Your task to perform on an android device: snooze an email in the gmail app Image 0: 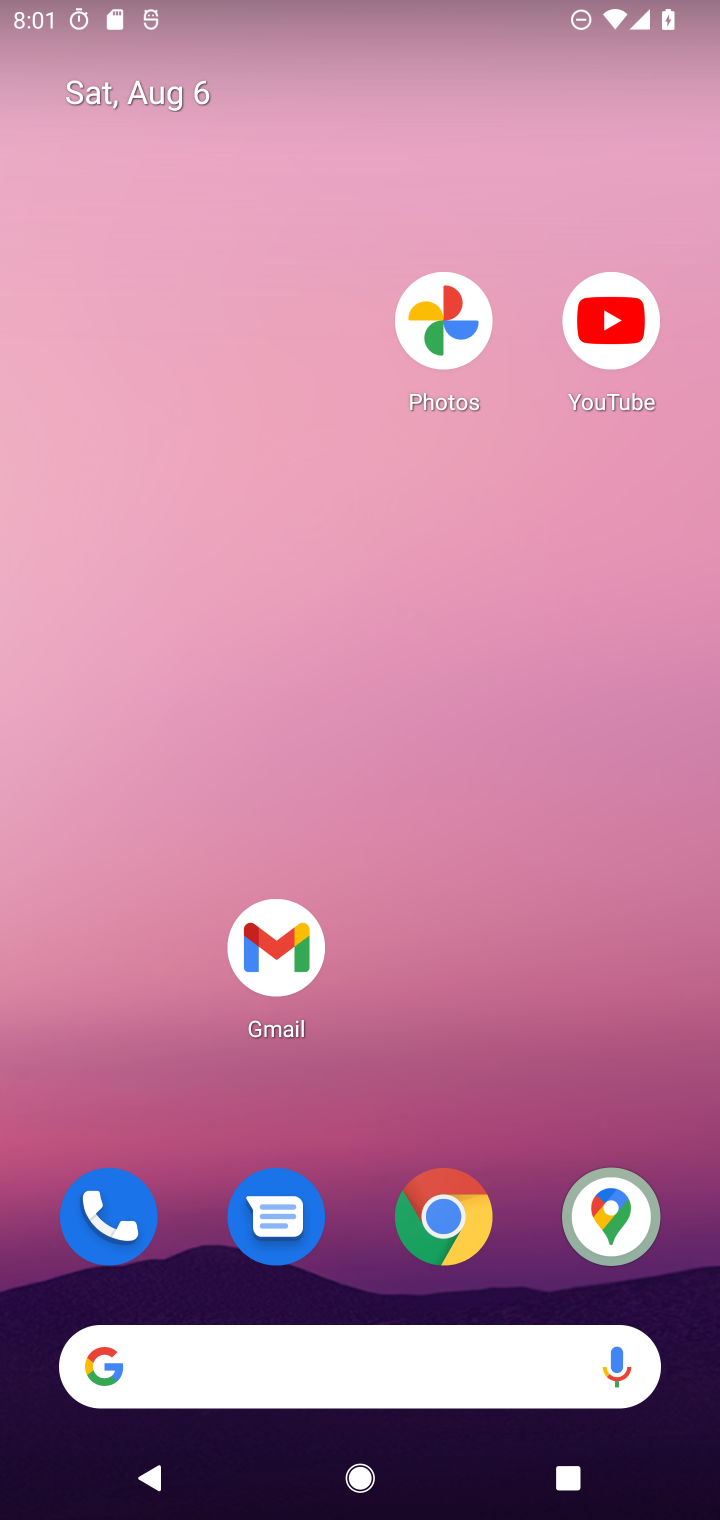
Step 0: drag from (471, 555) to (52, 46)
Your task to perform on an android device: snooze an email in the gmail app Image 1: 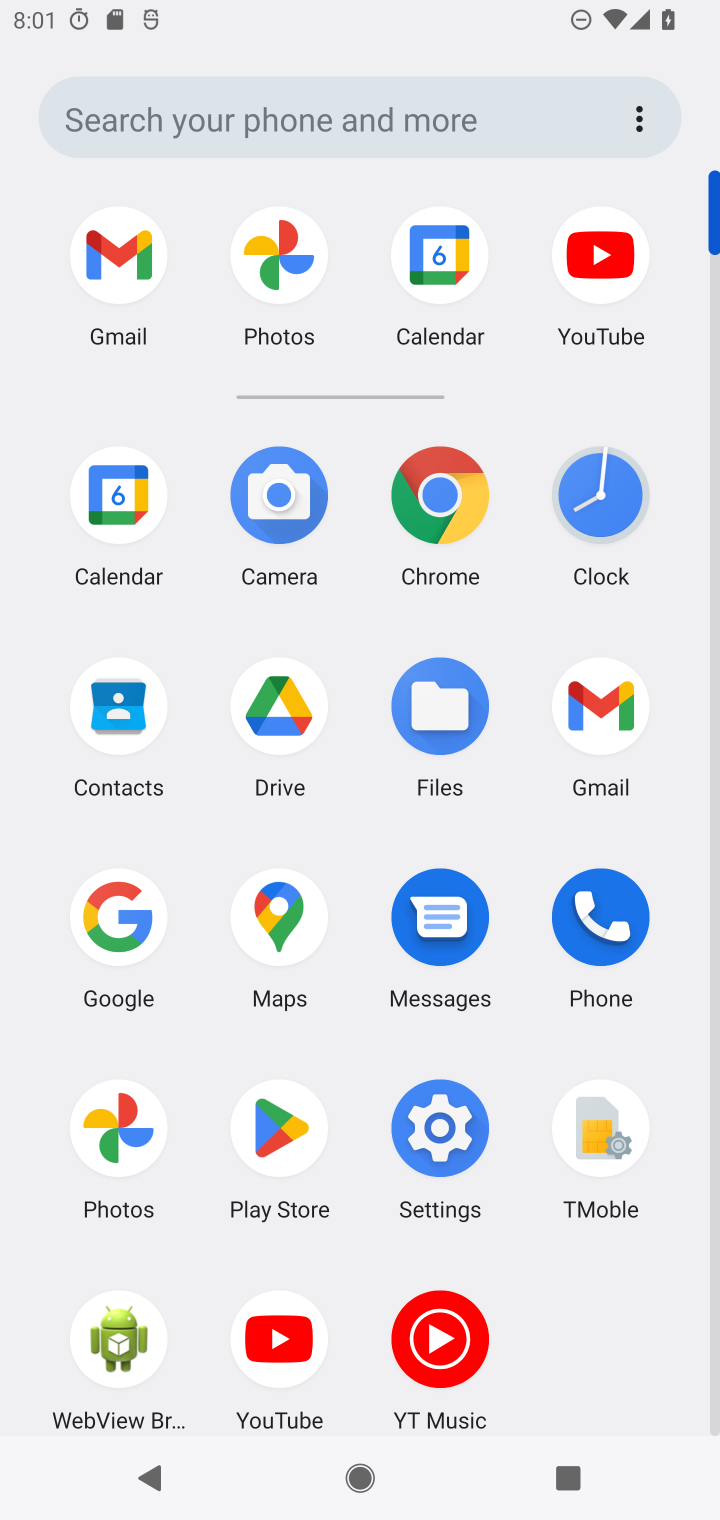
Step 1: click (582, 707)
Your task to perform on an android device: snooze an email in the gmail app Image 2: 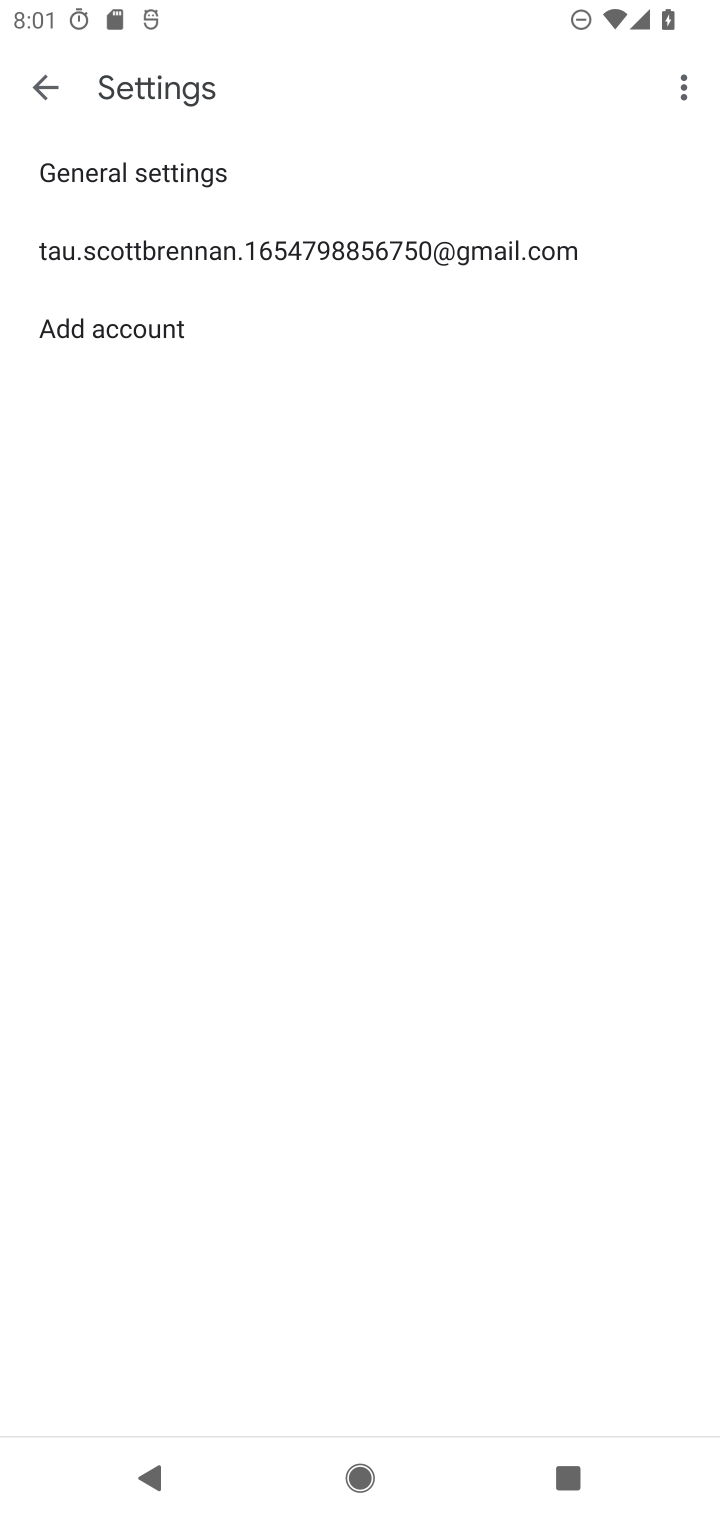
Step 2: click (55, 85)
Your task to perform on an android device: snooze an email in the gmail app Image 3: 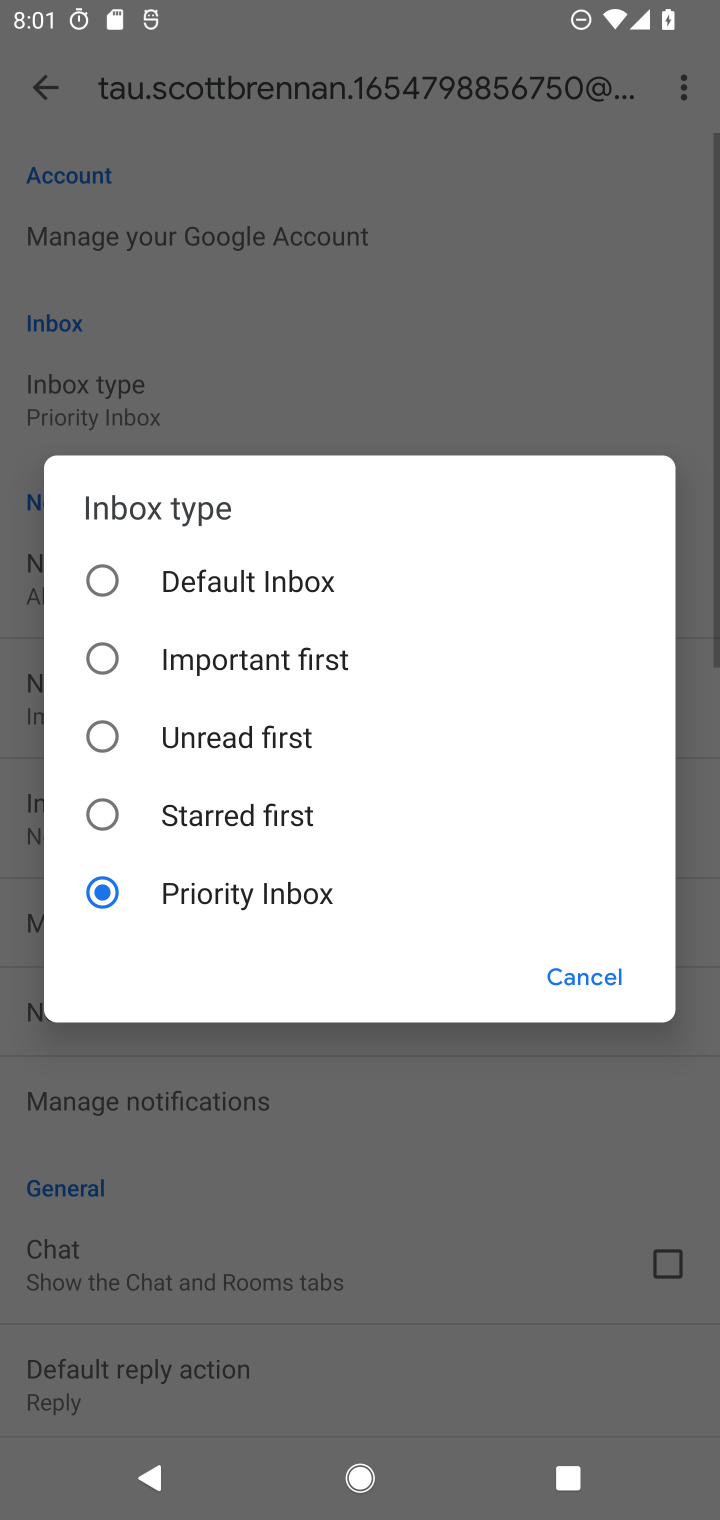
Step 3: click (129, 154)
Your task to perform on an android device: snooze an email in the gmail app Image 4: 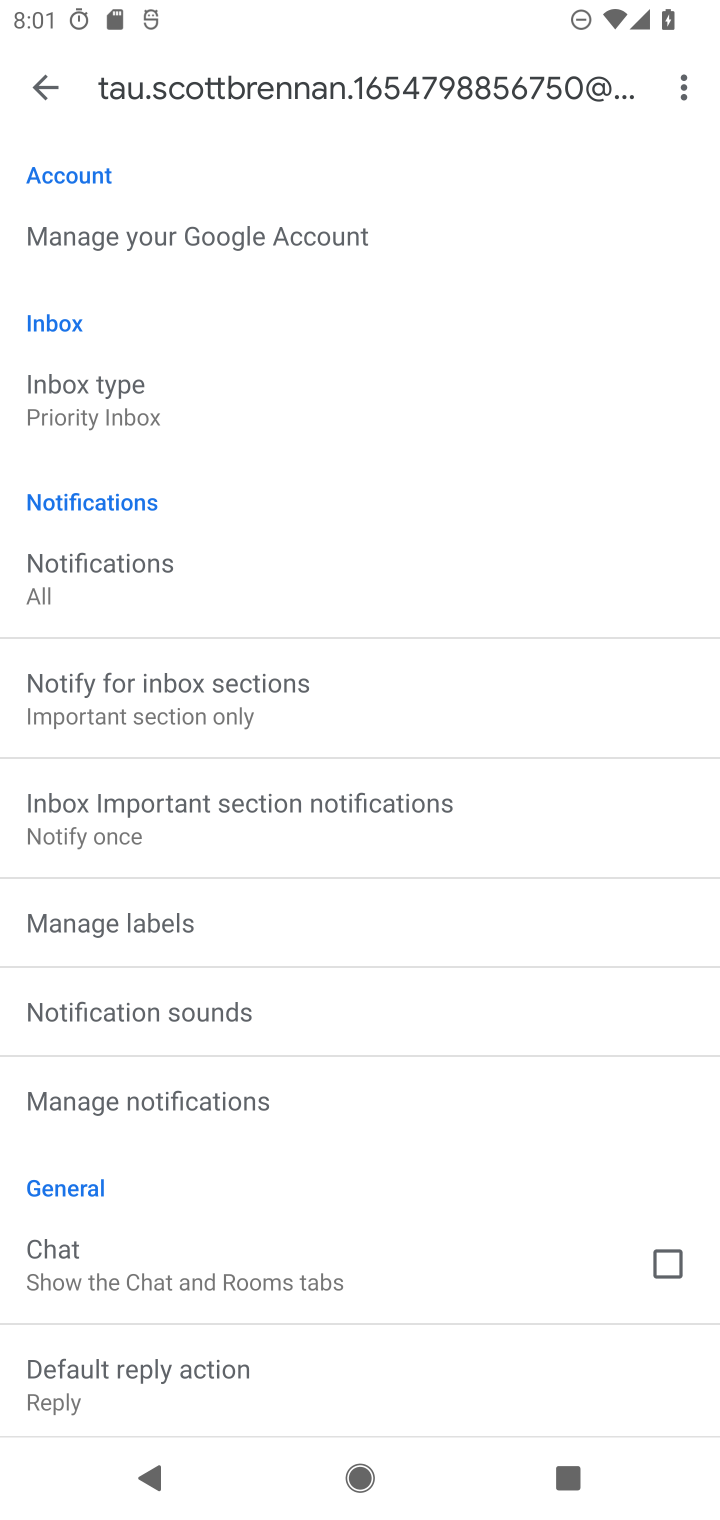
Step 4: click (26, 75)
Your task to perform on an android device: snooze an email in the gmail app Image 5: 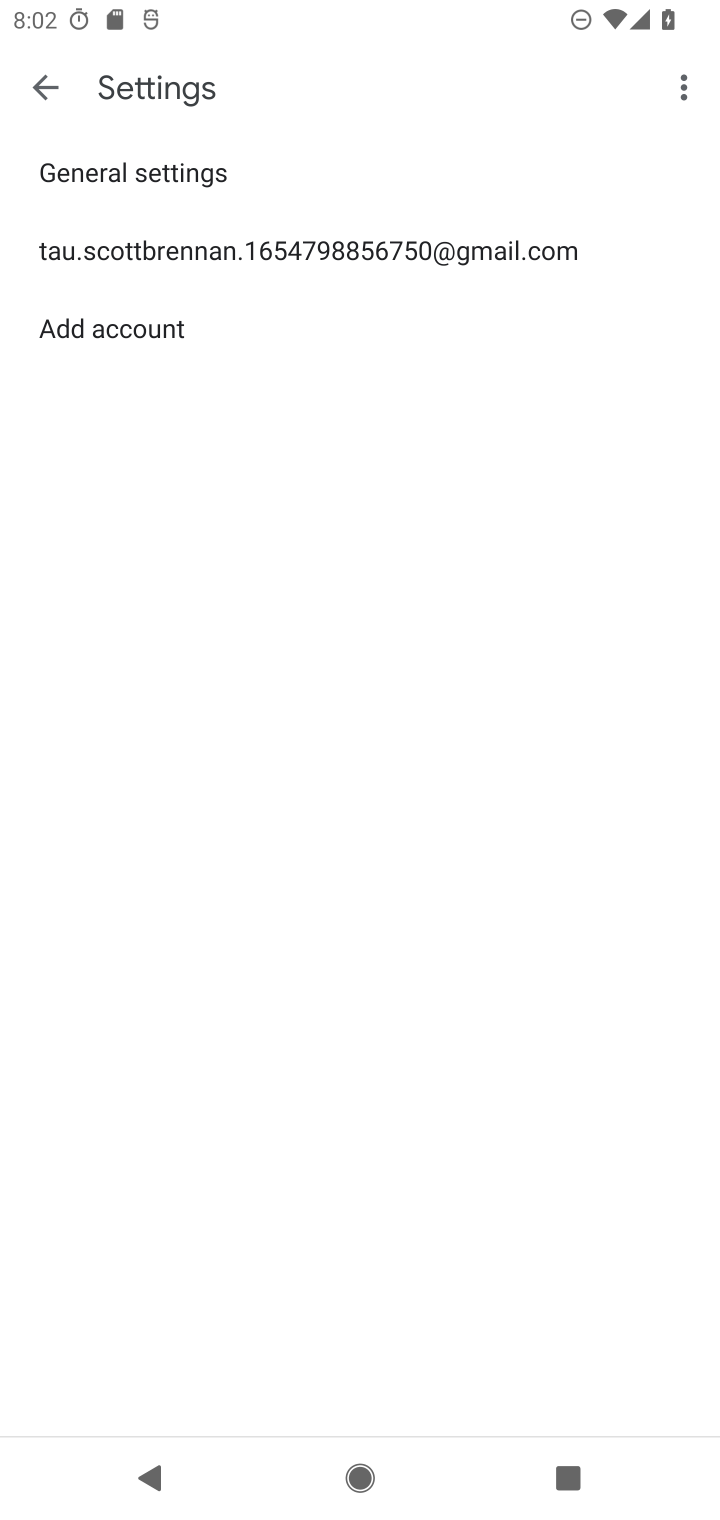
Step 5: click (28, 75)
Your task to perform on an android device: snooze an email in the gmail app Image 6: 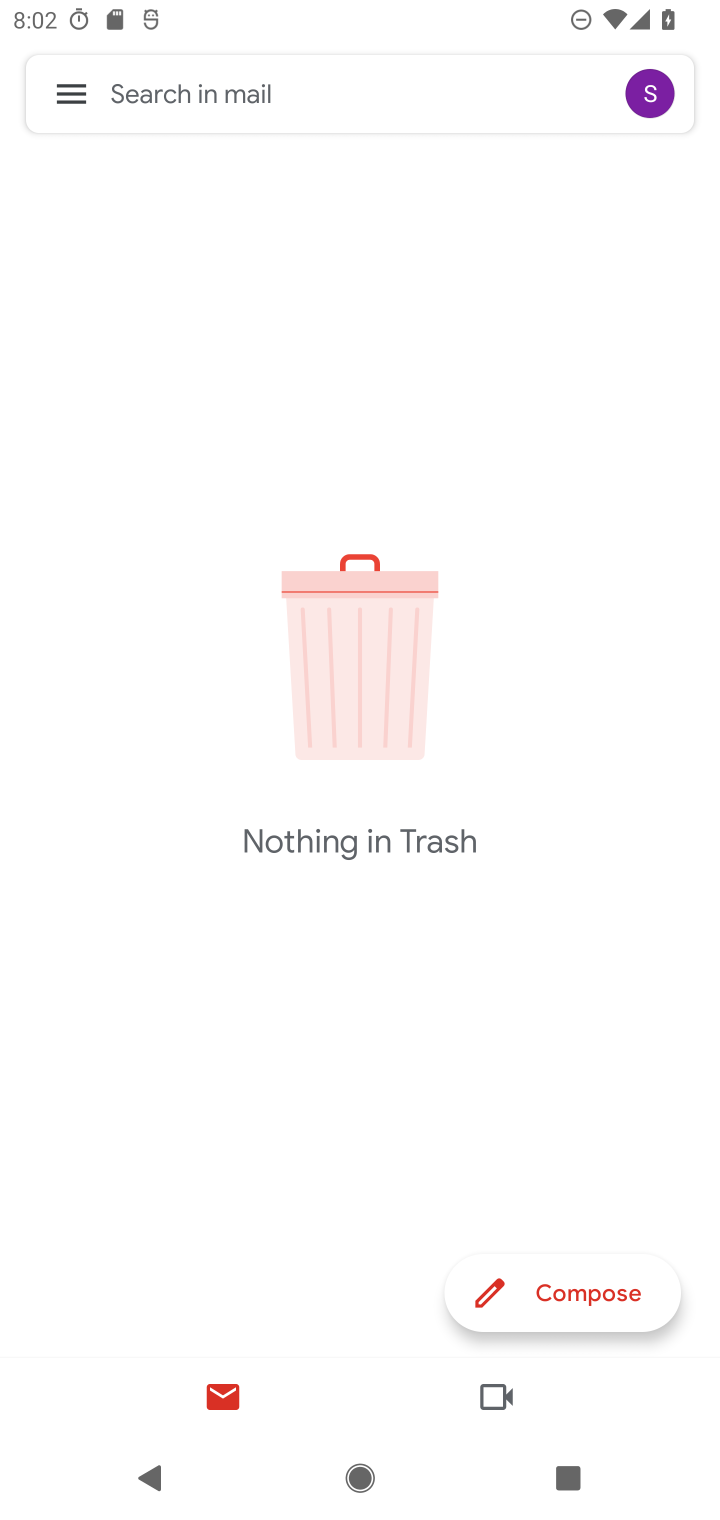
Step 6: click (58, 88)
Your task to perform on an android device: snooze an email in the gmail app Image 7: 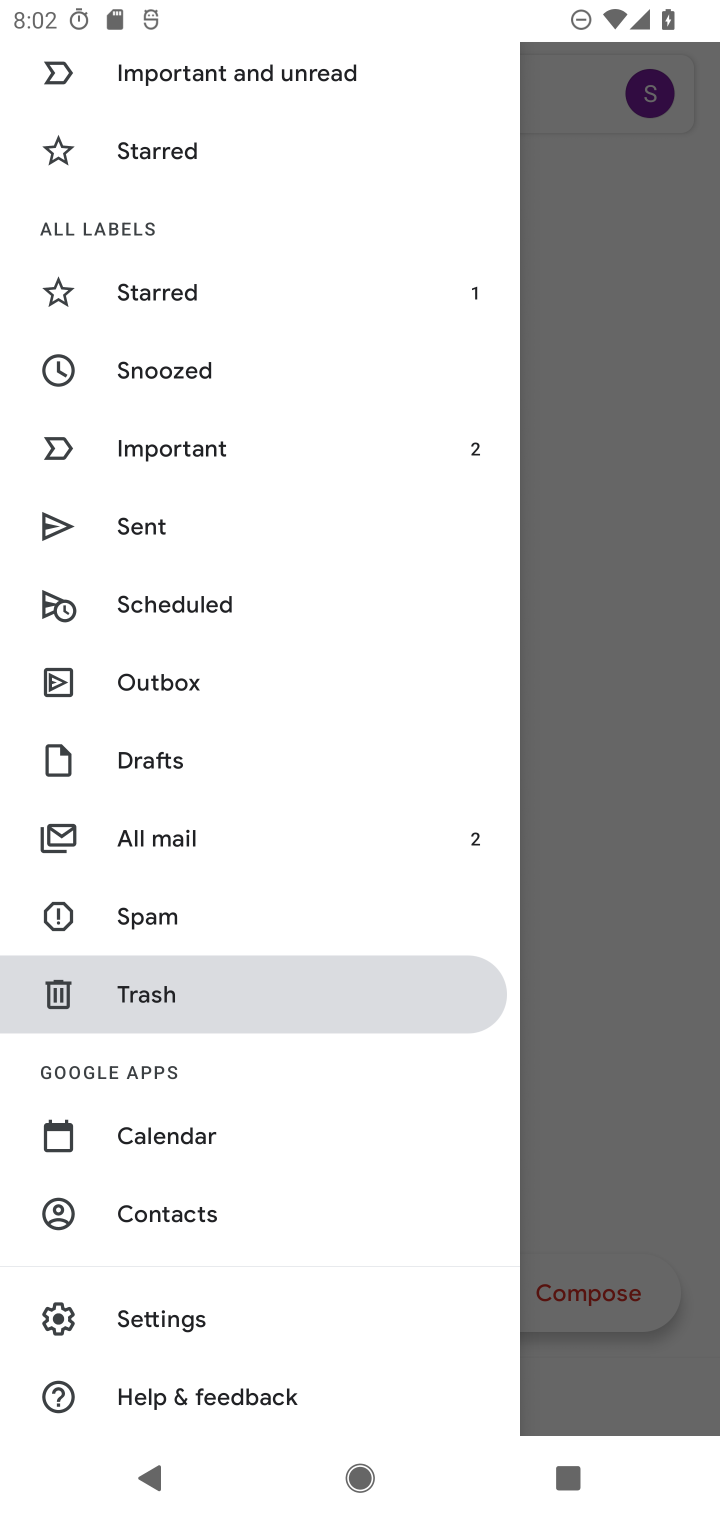
Step 7: click (160, 830)
Your task to perform on an android device: snooze an email in the gmail app Image 8: 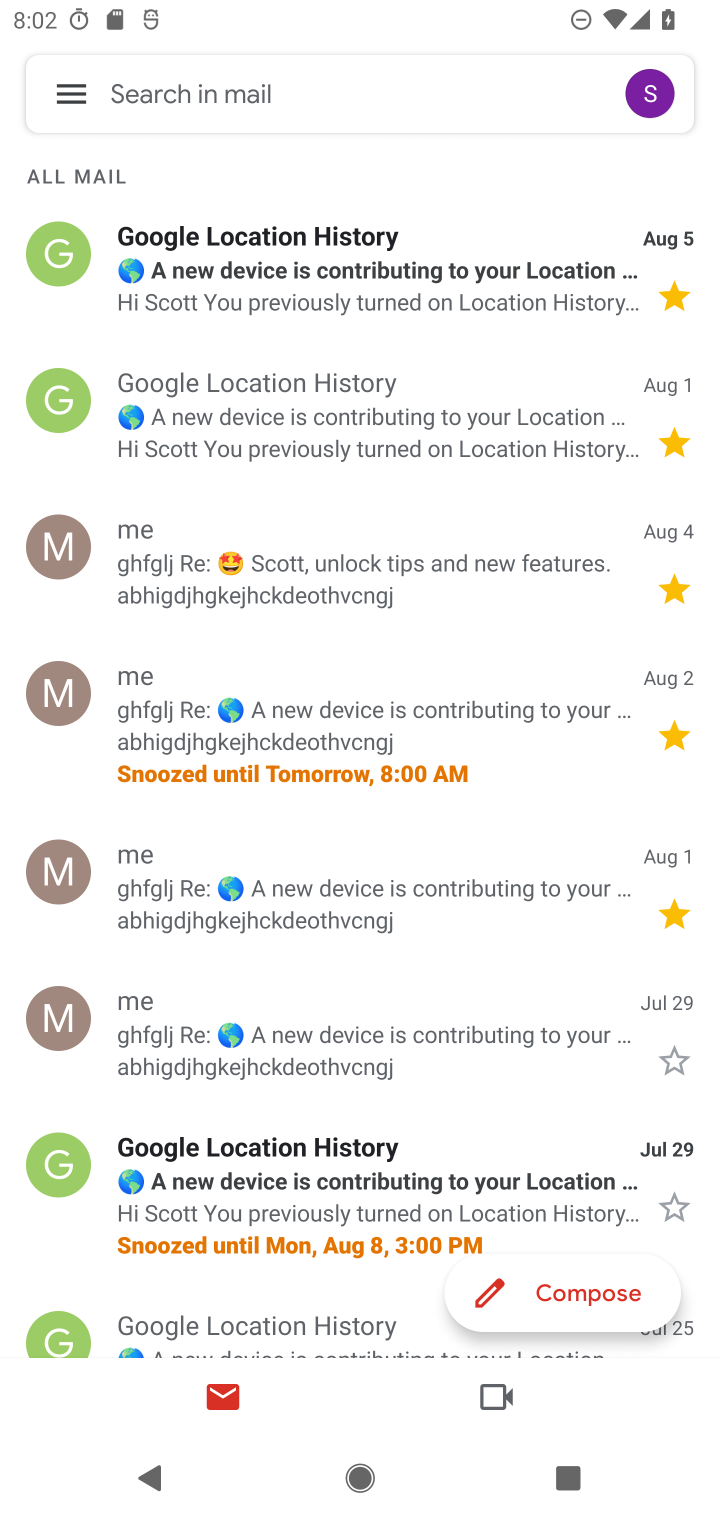
Step 8: click (333, 254)
Your task to perform on an android device: snooze an email in the gmail app Image 9: 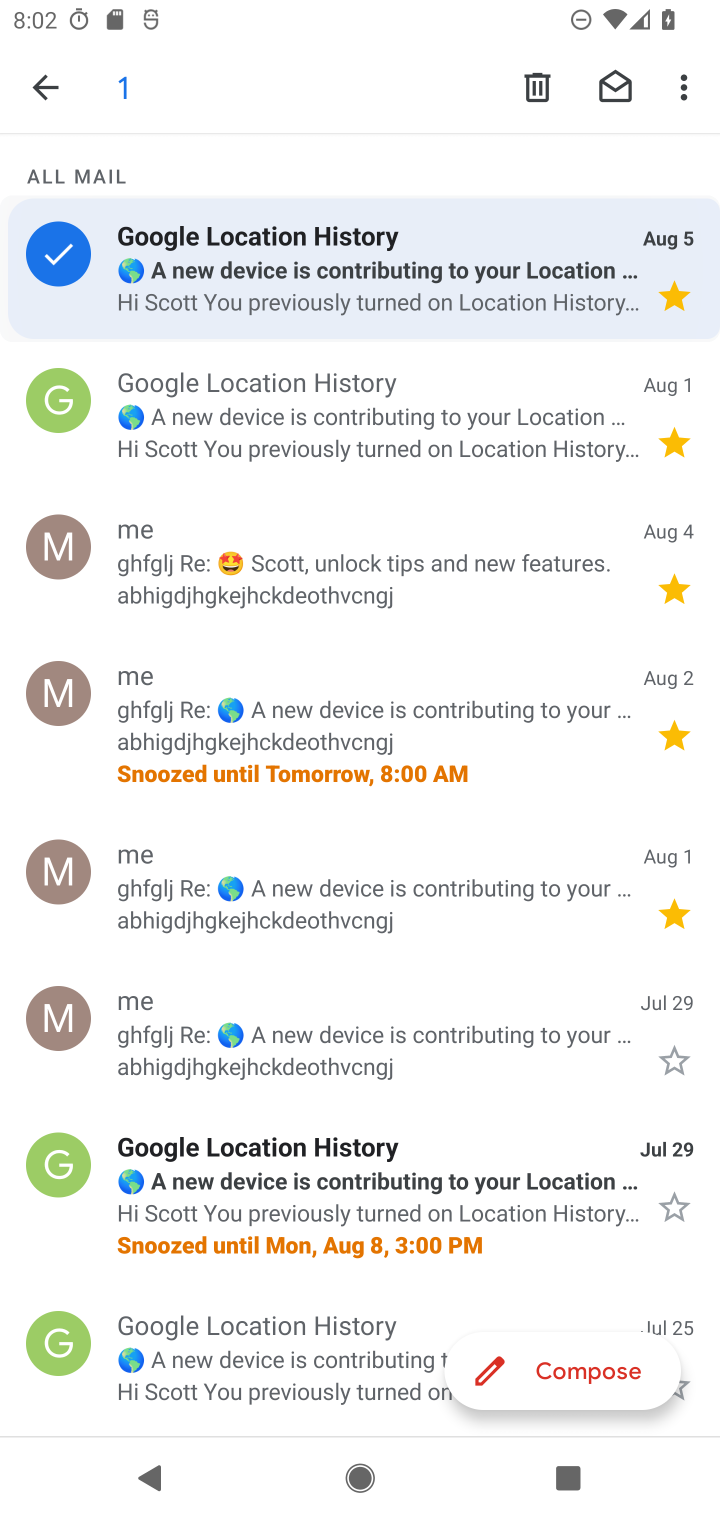
Step 9: click (676, 78)
Your task to perform on an android device: snooze an email in the gmail app Image 10: 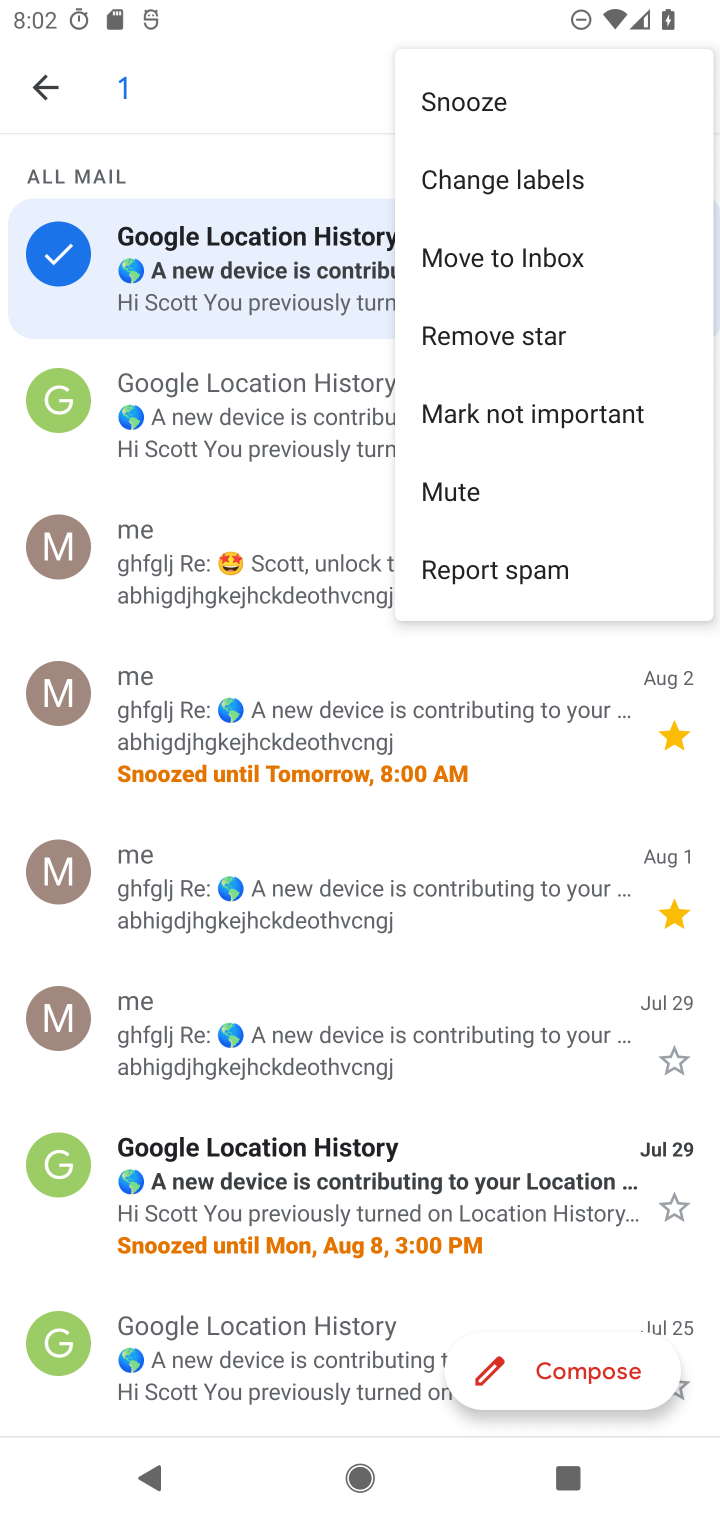
Step 10: click (470, 92)
Your task to perform on an android device: snooze an email in the gmail app Image 11: 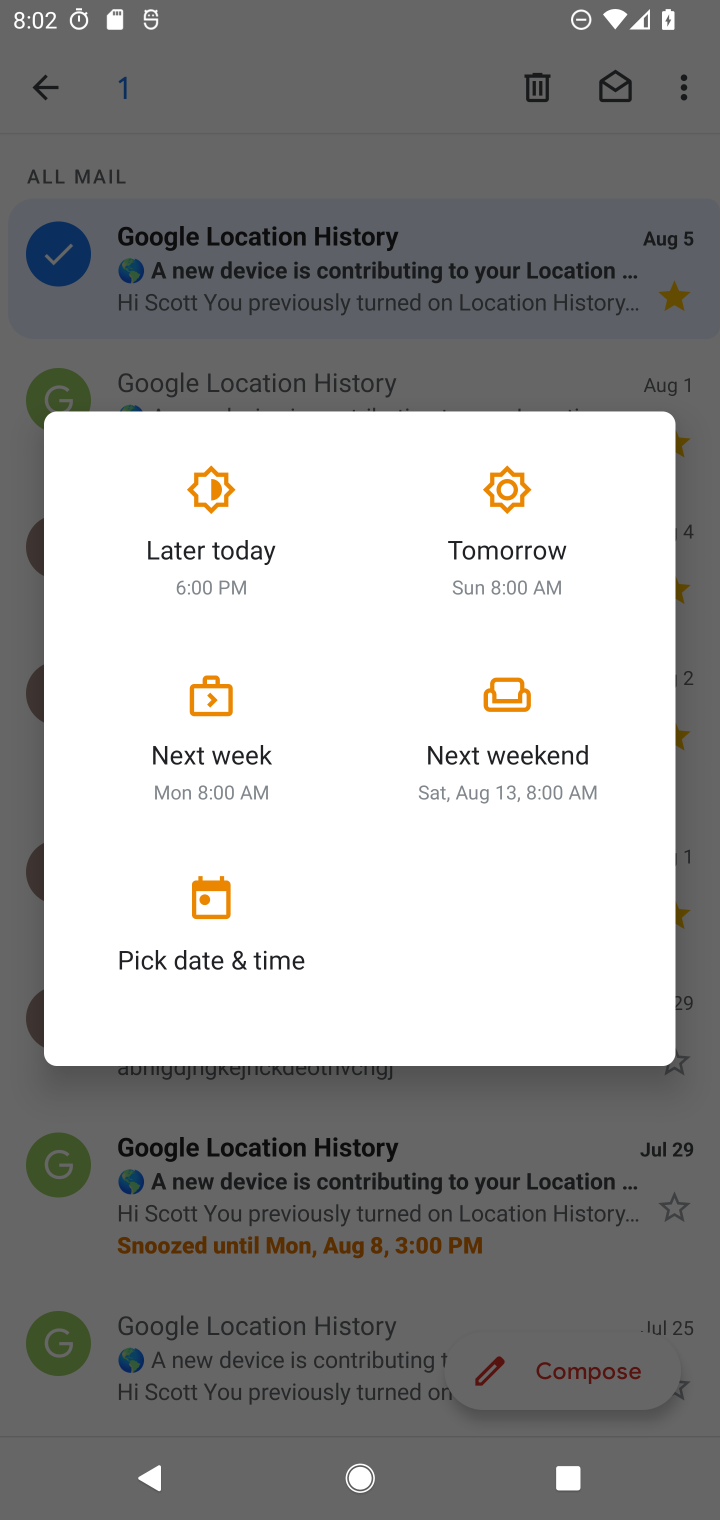
Step 11: click (477, 526)
Your task to perform on an android device: snooze an email in the gmail app Image 12: 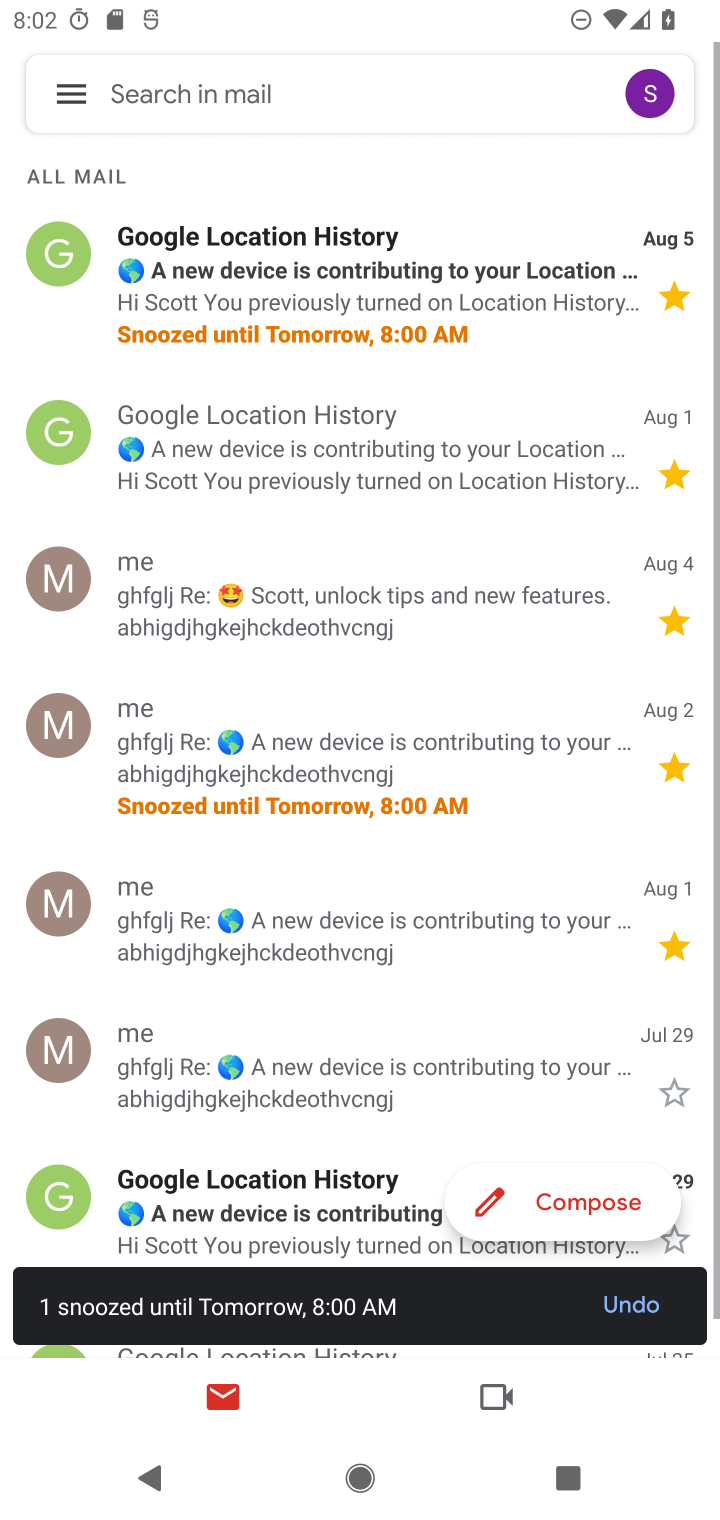
Step 12: task complete